Your task to perform on an android device: all mails in gmail Image 0: 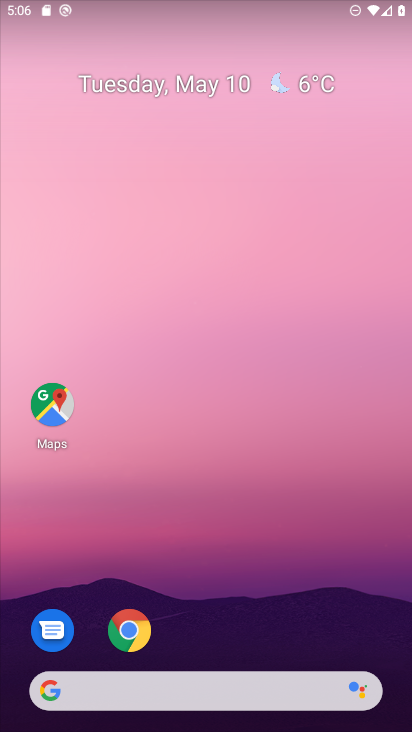
Step 0: drag from (274, 610) to (299, 179)
Your task to perform on an android device: all mails in gmail Image 1: 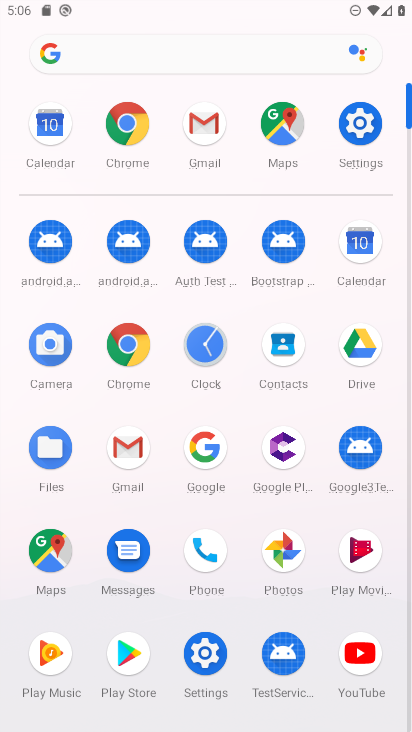
Step 1: click (131, 449)
Your task to perform on an android device: all mails in gmail Image 2: 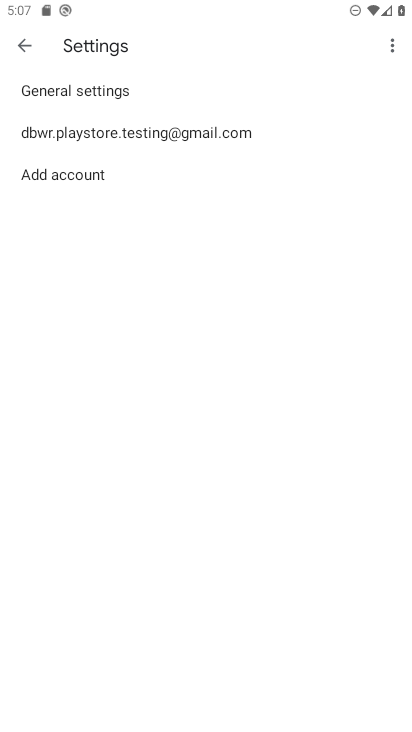
Step 2: click (15, 37)
Your task to perform on an android device: all mails in gmail Image 3: 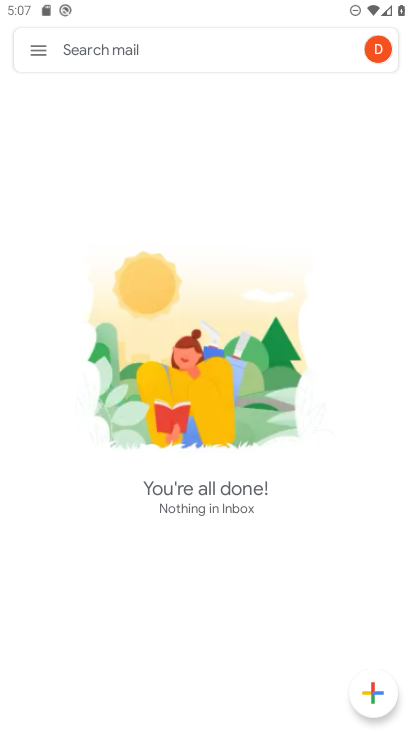
Step 3: click (14, 37)
Your task to perform on an android device: all mails in gmail Image 4: 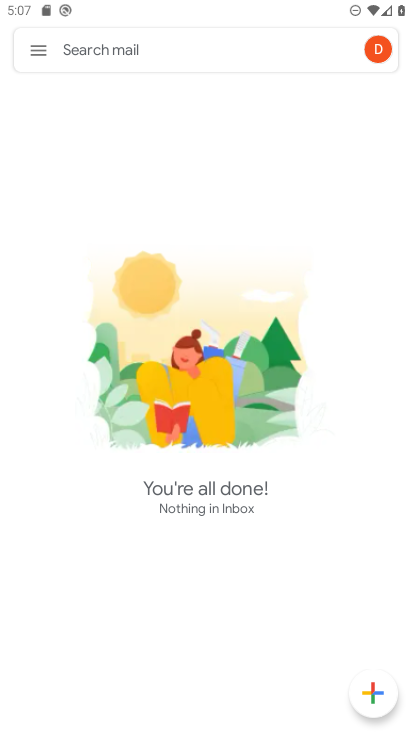
Step 4: click (32, 39)
Your task to perform on an android device: all mails in gmail Image 5: 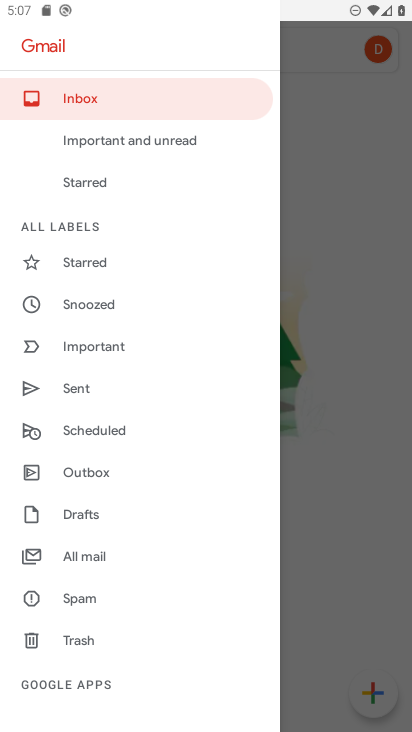
Step 5: drag from (106, 608) to (117, 500)
Your task to perform on an android device: all mails in gmail Image 6: 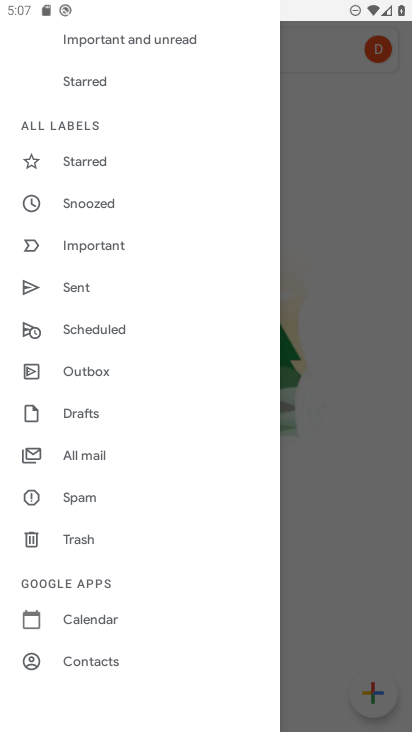
Step 6: click (98, 455)
Your task to perform on an android device: all mails in gmail Image 7: 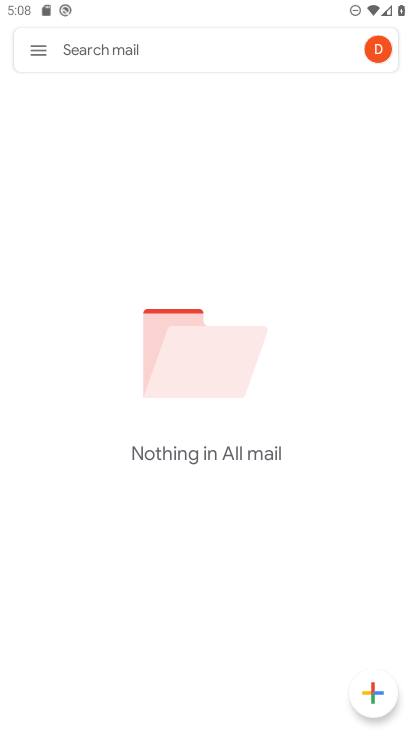
Step 7: task complete